Your task to perform on an android device: Open calendar and show me the fourth week of next month Image 0: 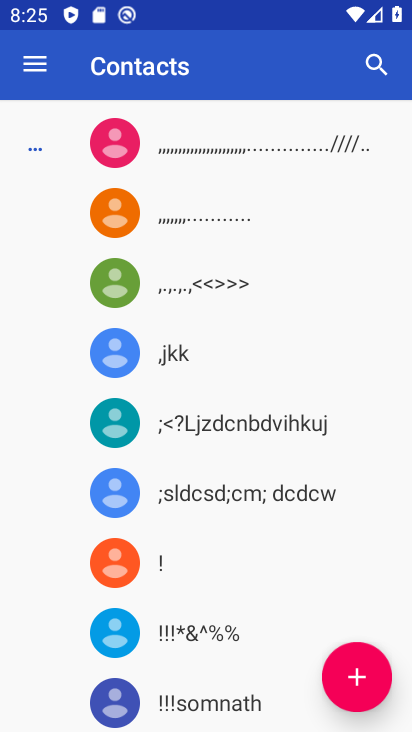
Step 0: press home button
Your task to perform on an android device: Open calendar and show me the fourth week of next month Image 1: 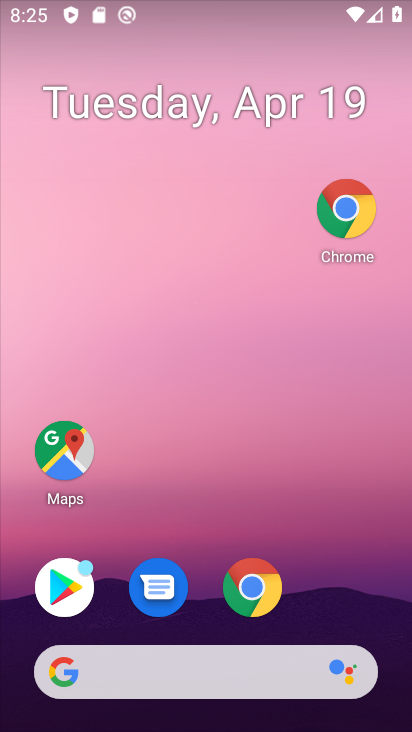
Step 1: drag from (362, 597) to (191, 79)
Your task to perform on an android device: Open calendar and show me the fourth week of next month Image 2: 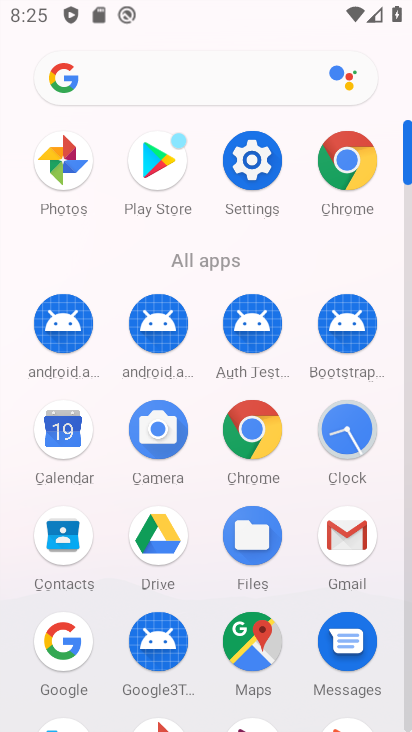
Step 2: click (44, 435)
Your task to perform on an android device: Open calendar and show me the fourth week of next month Image 3: 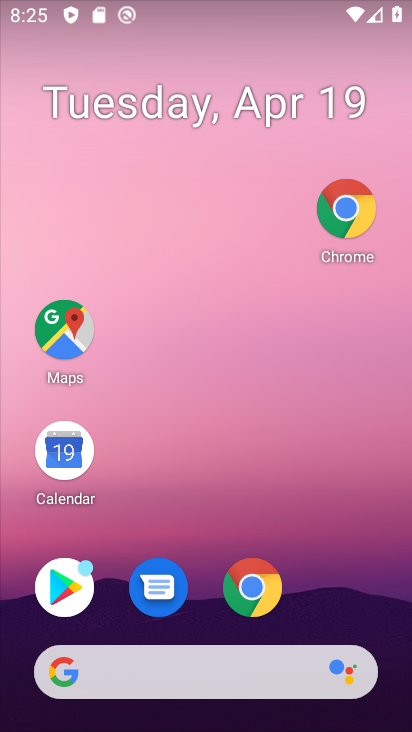
Step 3: click (64, 440)
Your task to perform on an android device: Open calendar and show me the fourth week of next month Image 4: 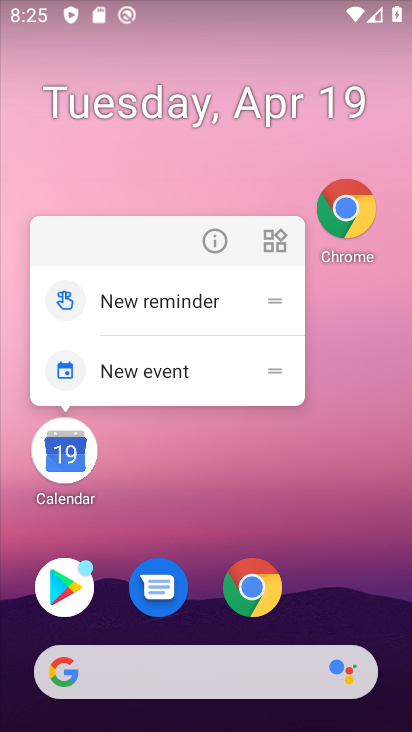
Step 4: click (66, 452)
Your task to perform on an android device: Open calendar and show me the fourth week of next month Image 5: 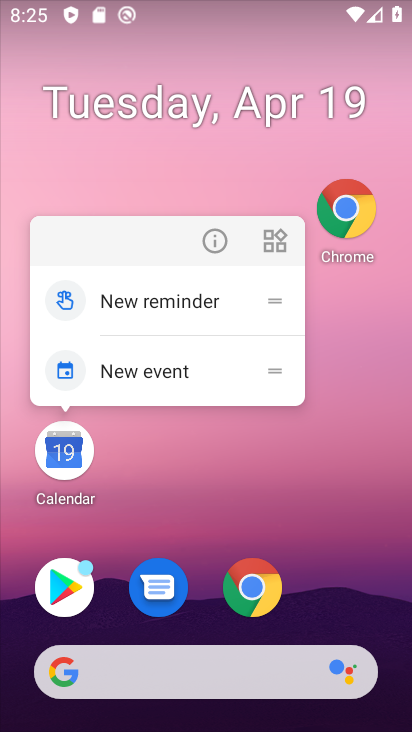
Step 5: click (77, 442)
Your task to perform on an android device: Open calendar and show me the fourth week of next month Image 6: 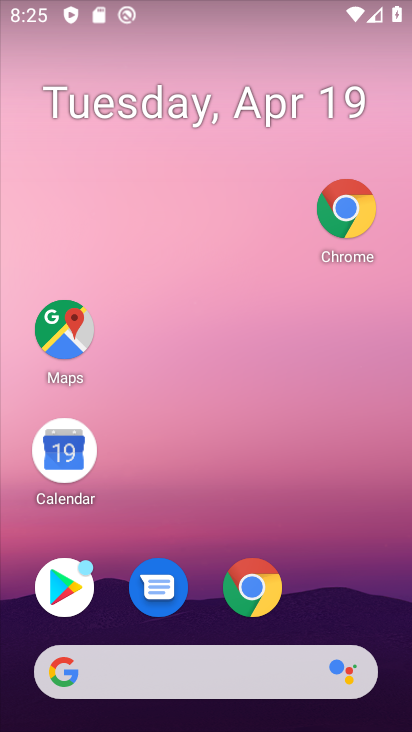
Step 6: click (78, 443)
Your task to perform on an android device: Open calendar and show me the fourth week of next month Image 7: 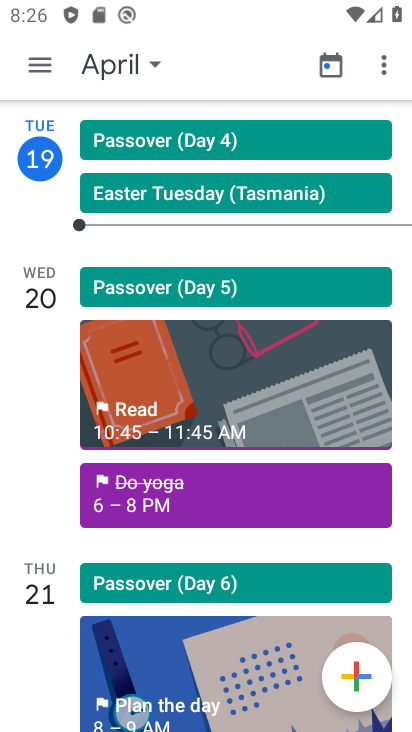
Step 7: click (44, 67)
Your task to perform on an android device: Open calendar and show me the fourth week of next month Image 8: 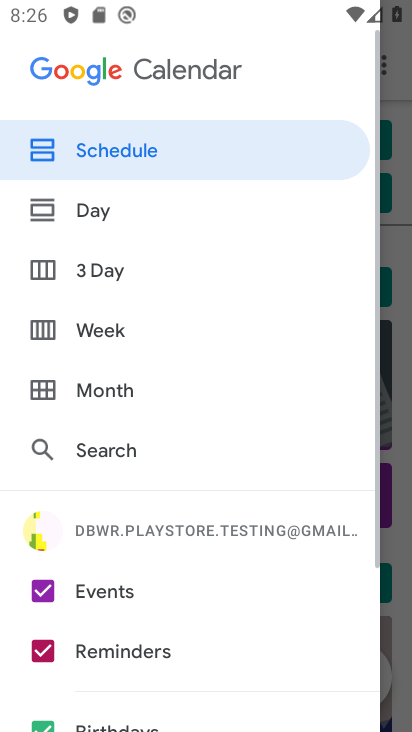
Step 8: click (97, 209)
Your task to perform on an android device: Open calendar and show me the fourth week of next month Image 9: 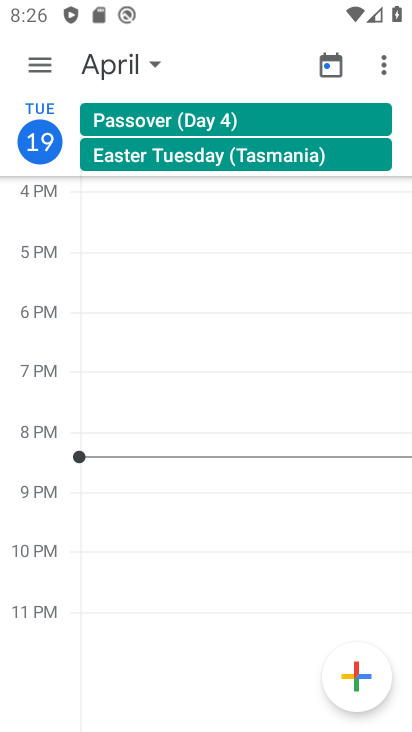
Step 9: click (156, 63)
Your task to perform on an android device: Open calendar and show me the fourth week of next month Image 10: 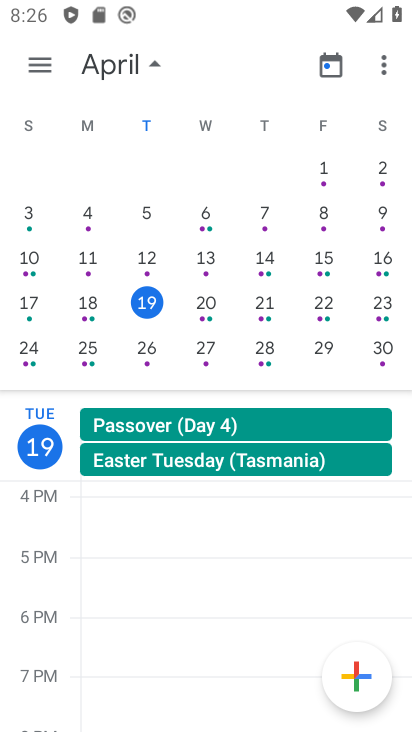
Step 10: drag from (285, 308) to (17, 289)
Your task to perform on an android device: Open calendar and show me the fourth week of next month Image 11: 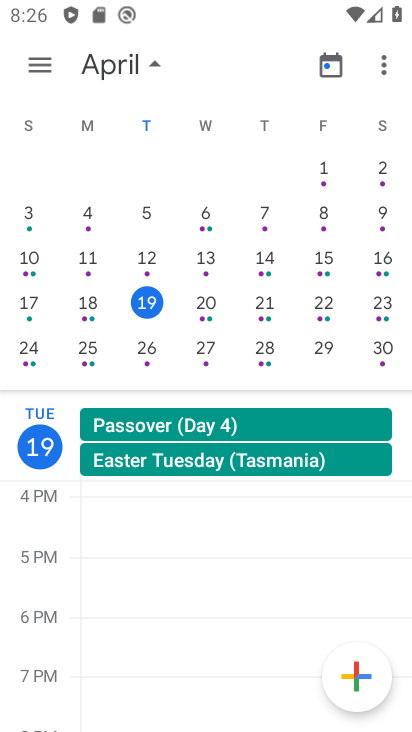
Step 11: drag from (225, 303) to (17, 358)
Your task to perform on an android device: Open calendar and show me the fourth week of next month Image 12: 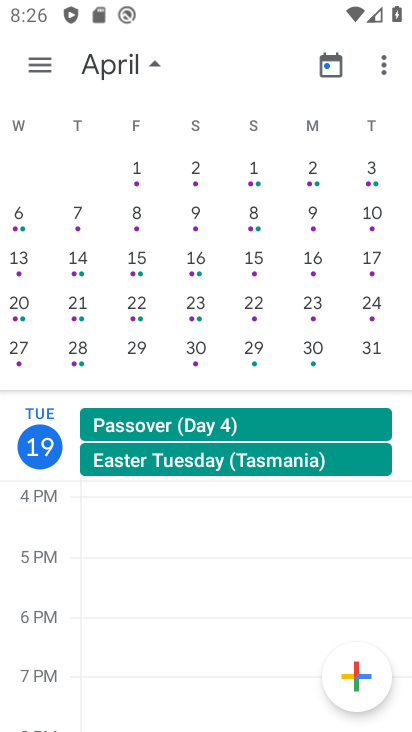
Step 12: drag from (249, 291) to (21, 287)
Your task to perform on an android device: Open calendar and show me the fourth week of next month Image 13: 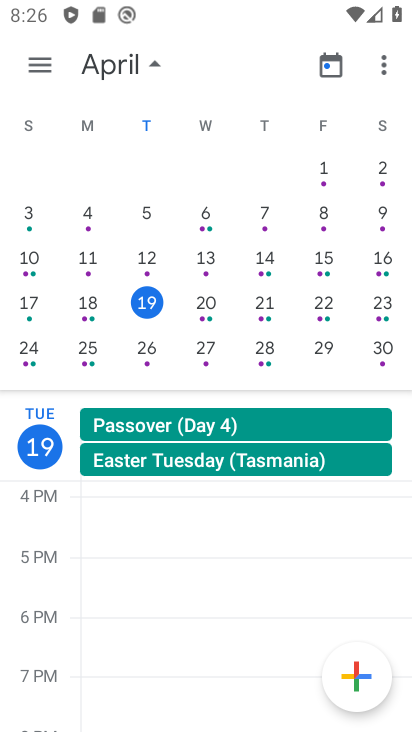
Step 13: click (47, 341)
Your task to perform on an android device: Open calendar and show me the fourth week of next month Image 14: 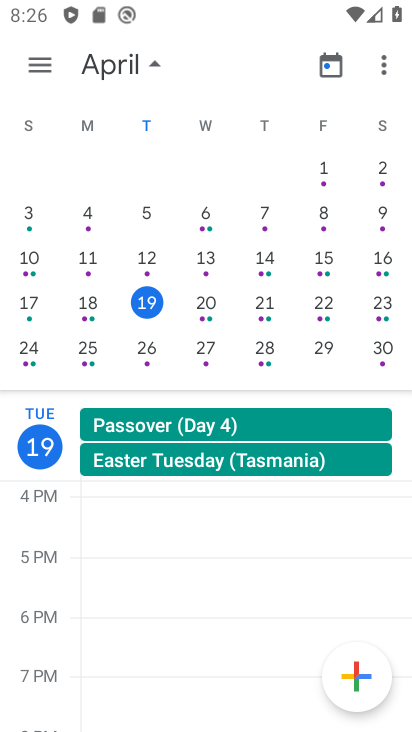
Step 14: click (6, 324)
Your task to perform on an android device: Open calendar and show me the fourth week of next month Image 15: 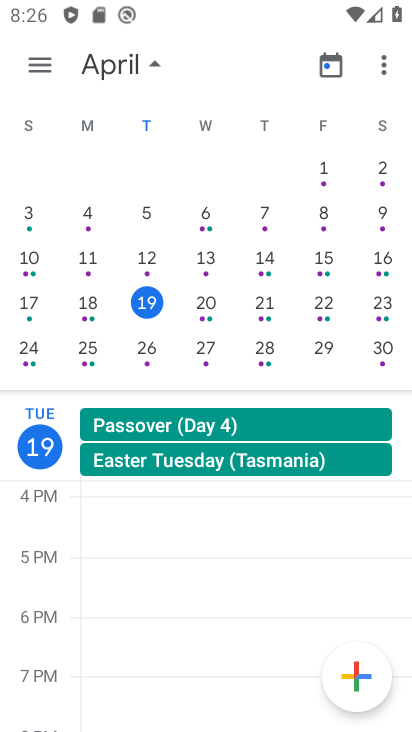
Step 15: drag from (262, 295) to (16, 347)
Your task to perform on an android device: Open calendar and show me the fourth week of next month Image 16: 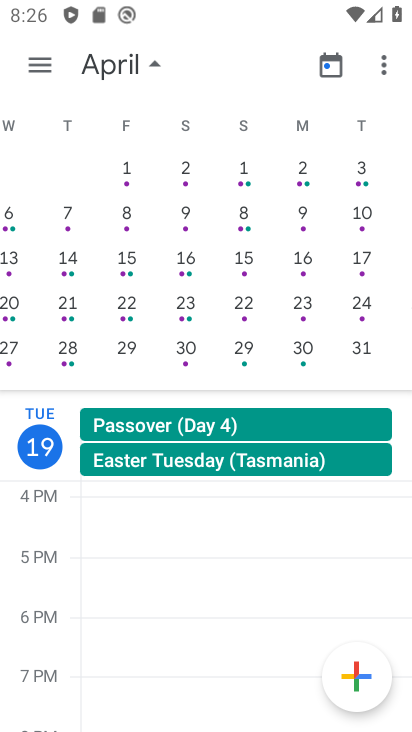
Step 16: drag from (220, 314) to (1, 367)
Your task to perform on an android device: Open calendar and show me the fourth week of next month Image 17: 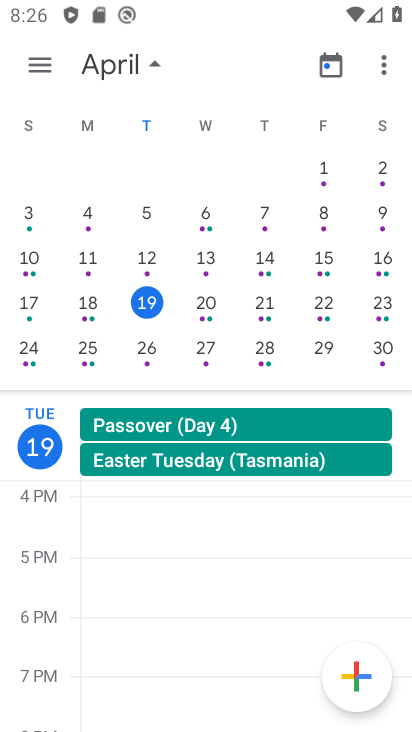
Step 17: drag from (255, 319) to (17, 323)
Your task to perform on an android device: Open calendar and show me the fourth week of next month Image 18: 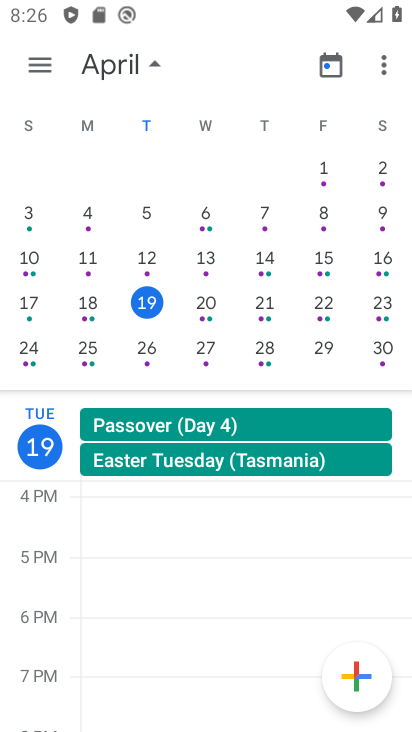
Step 18: drag from (179, 313) to (11, 262)
Your task to perform on an android device: Open calendar and show me the fourth week of next month Image 19: 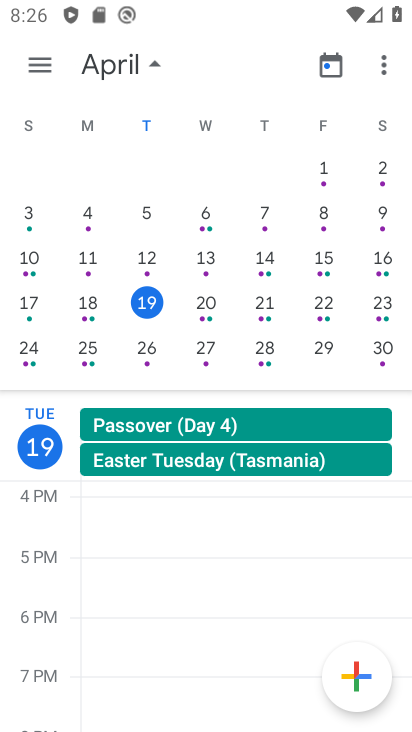
Step 19: drag from (51, 335) to (2, 328)
Your task to perform on an android device: Open calendar and show me the fourth week of next month Image 20: 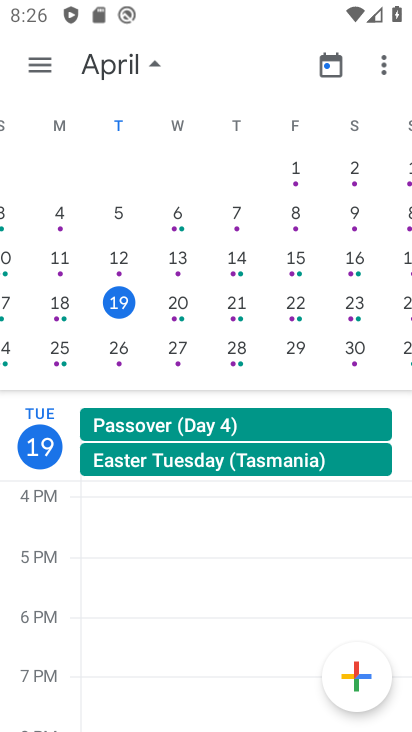
Step 20: drag from (248, 284) to (14, 286)
Your task to perform on an android device: Open calendar and show me the fourth week of next month Image 21: 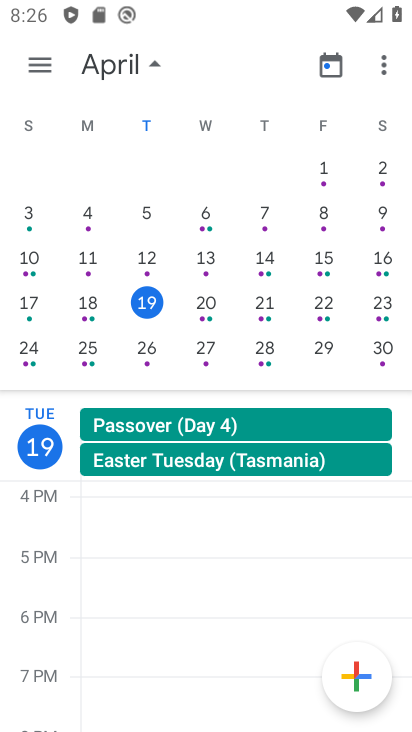
Step 21: drag from (356, 300) to (24, 303)
Your task to perform on an android device: Open calendar and show me the fourth week of next month Image 22: 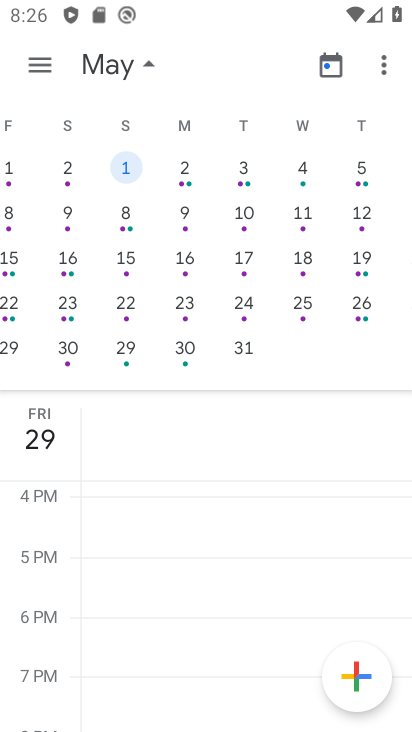
Step 22: drag from (176, 290) to (25, 436)
Your task to perform on an android device: Open calendar and show me the fourth week of next month Image 23: 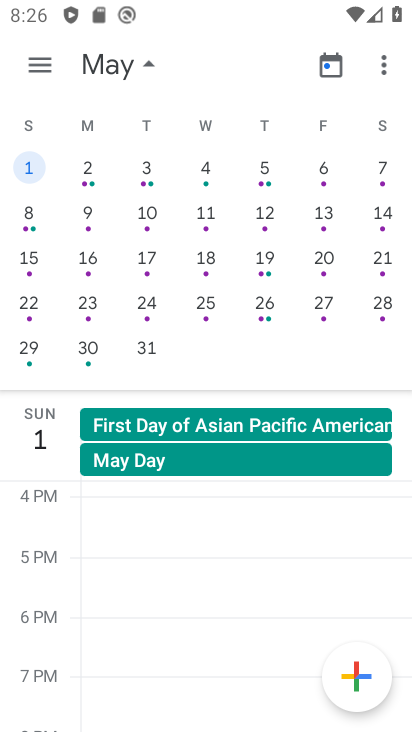
Step 23: click (89, 303)
Your task to perform on an android device: Open calendar and show me the fourth week of next month Image 24: 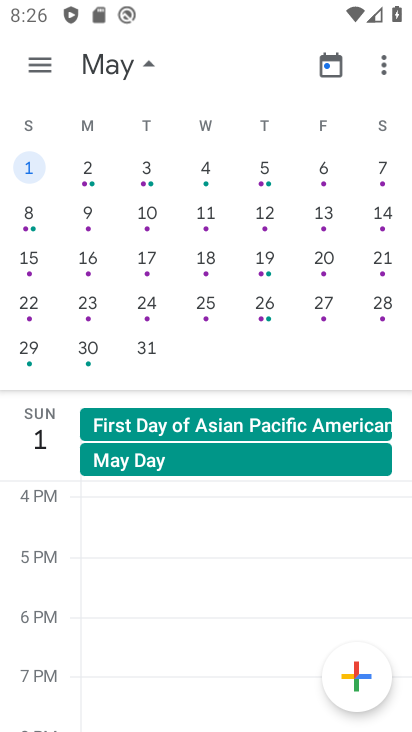
Step 24: click (88, 304)
Your task to perform on an android device: Open calendar and show me the fourth week of next month Image 25: 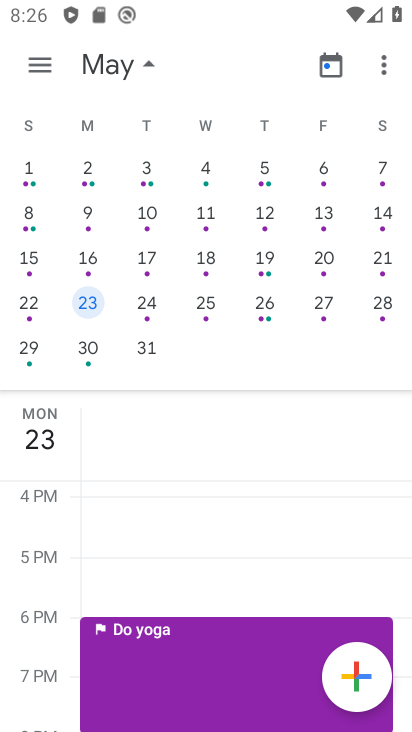
Step 25: click (88, 302)
Your task to perform on an android device: Open calendar and show me the fourth week of next month Image 26: 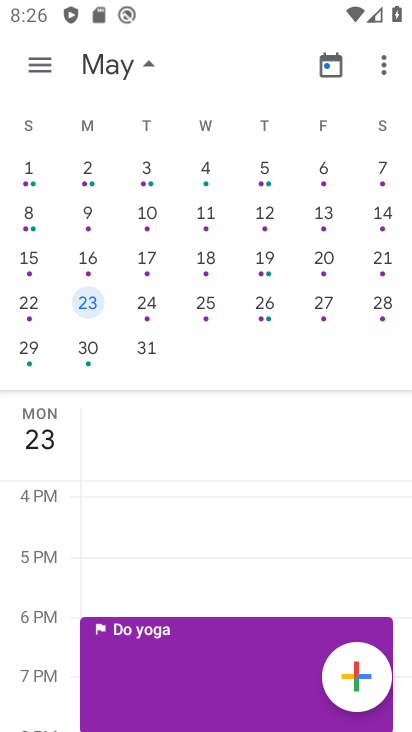
Step 26: task complete